Your task to perform on an android device: change notification settings in the gmail app Image 0: 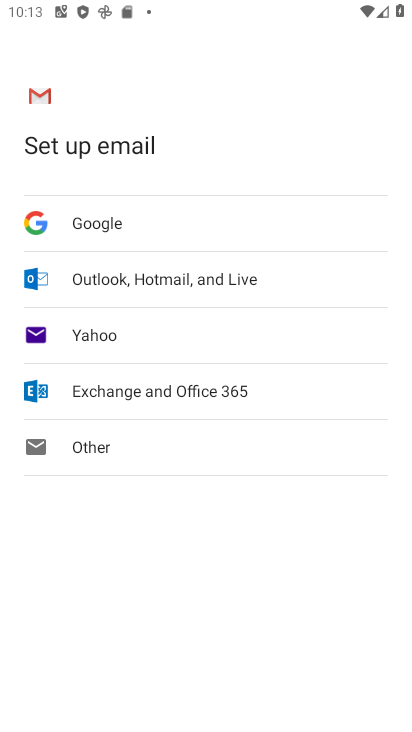
Step 0: press home button
Your task to perform on an android device: change notification settings in the gmail app Image 1: 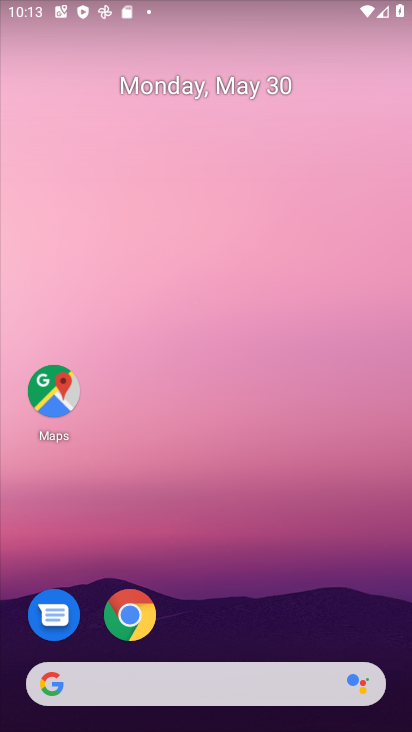
Step 1: drag from (210, 511) to (139, 0)
Your task to perform on an android device: change notification settings in the gmail app Image 2: 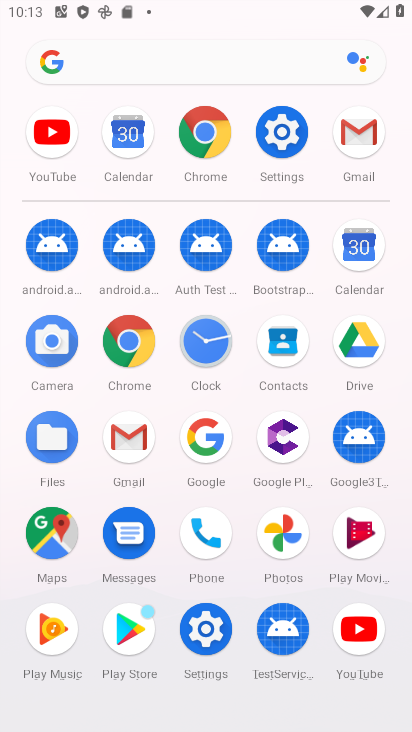
Step 2: click (141, 553)
Your task to perform on an android device: change notification settings in the gmail app Image 3: 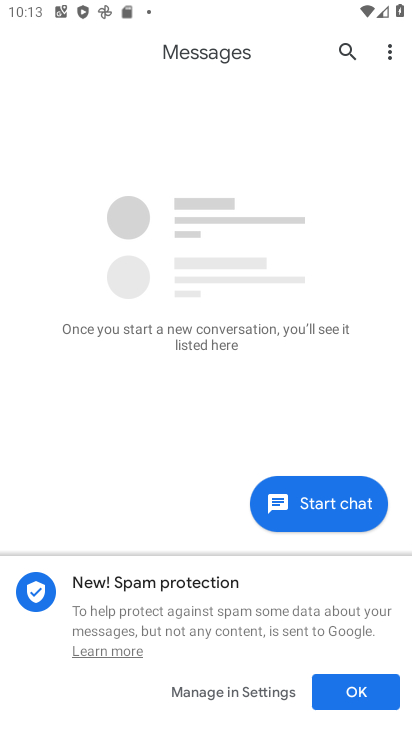
Step 3: press back button
Your task to perform on an android device: change notification settings in the gmail app Image 4: 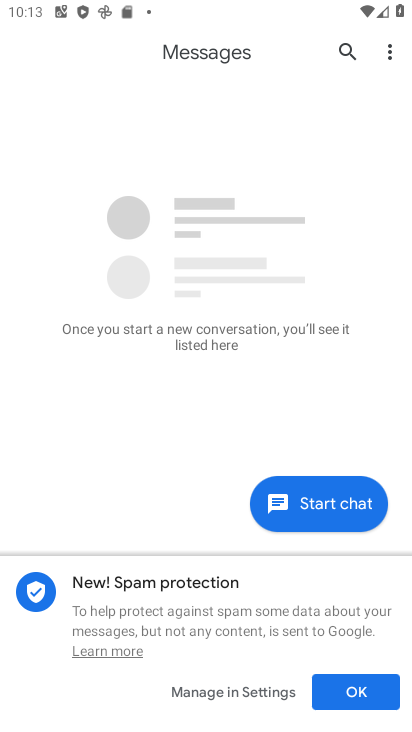
Step 4: press back button
Your task to perform on an android device: change notification settings in the gmail app Image 5: 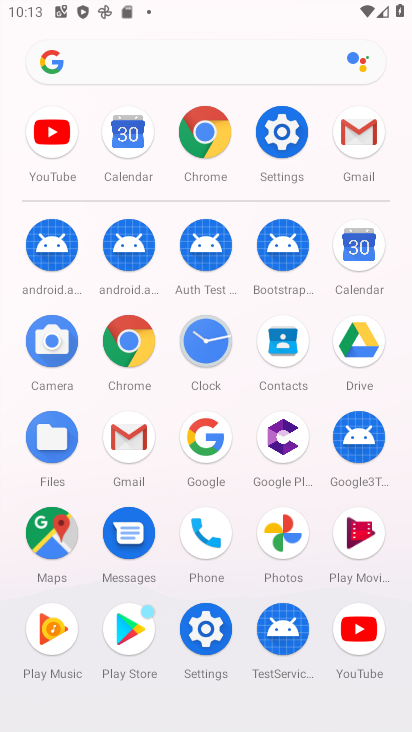
Step 5: click (141, 429)
Your task to perform on an android device: change notification settings in the gmail app Image 6: 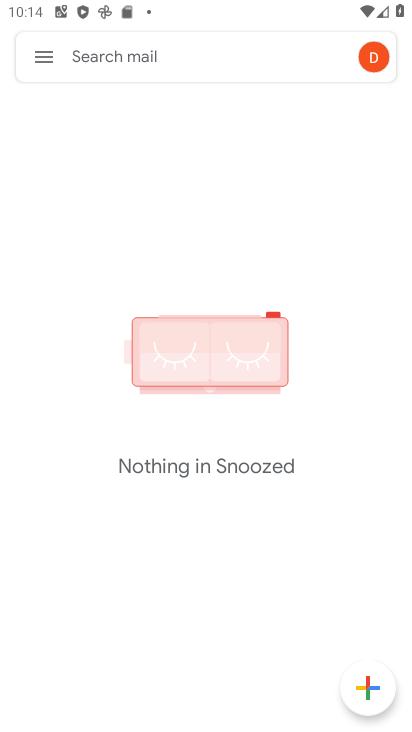
Step 6: click (43, 59)
Your task to perform on an android device: change notification settings in the gmail app Image 7: 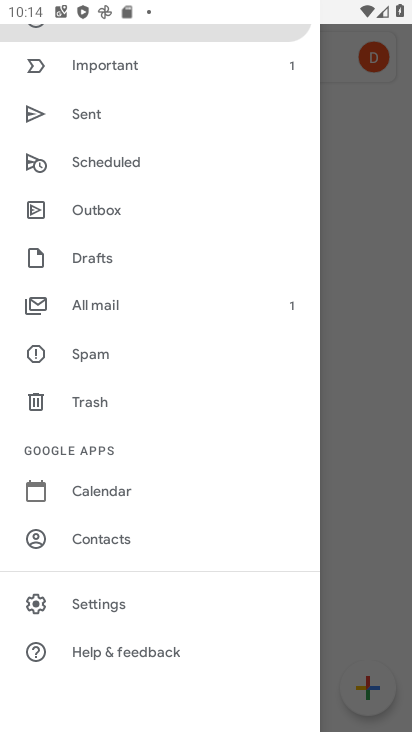
Step 7: click (149, 598)
Your task to perform on an android device: change notification settings in the gmail app Image 8: 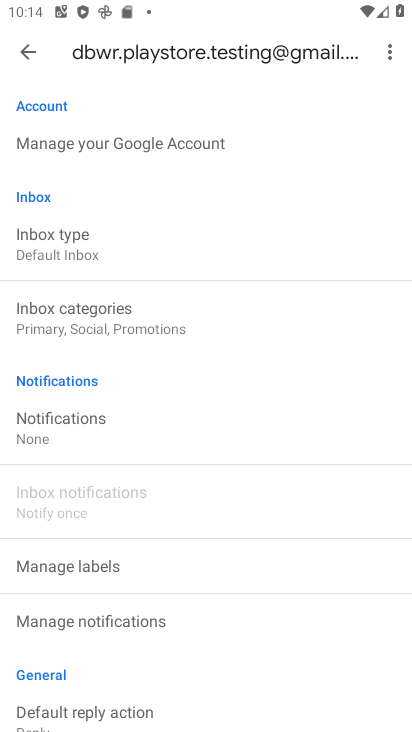
Step 8: click (141, 435)
Your task to perform on an android device: change notification settings in the gmail app Image 9: 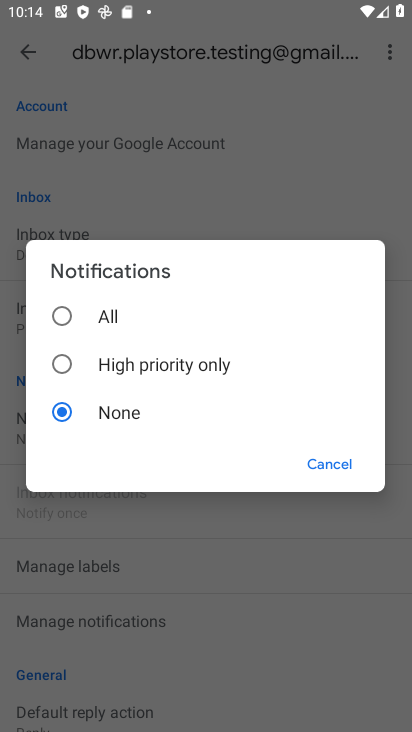
Step 9: click (111, 315)
Your task to perform on an android device: change notification settings in the gmail app Image 10: 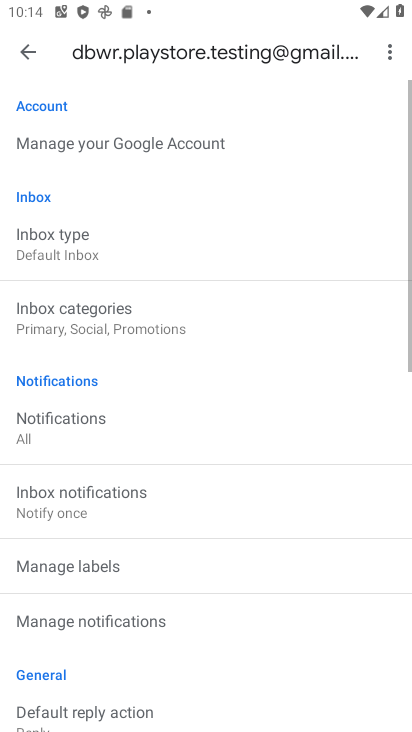
Step 10: task complete